Your task to perform on an android device: toggle show notifications on the lock screen Image 0: 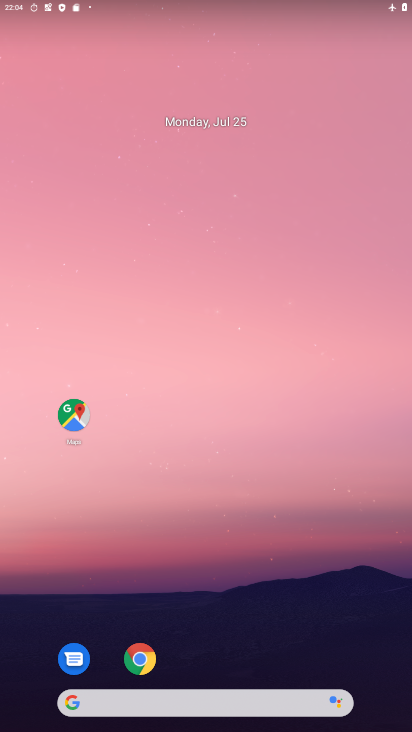
Step 0: drag from (195, 670) to (241, 243)
Your task to perform on an android device: toggle show notifications on the lock screen Image 1: 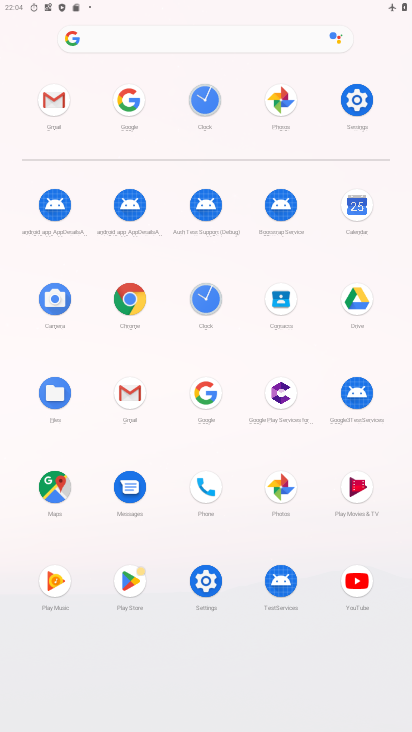
Step 1: click (359, 101)
Your task to perform on an android device: toggle show notifications on the lock screen Image 2: 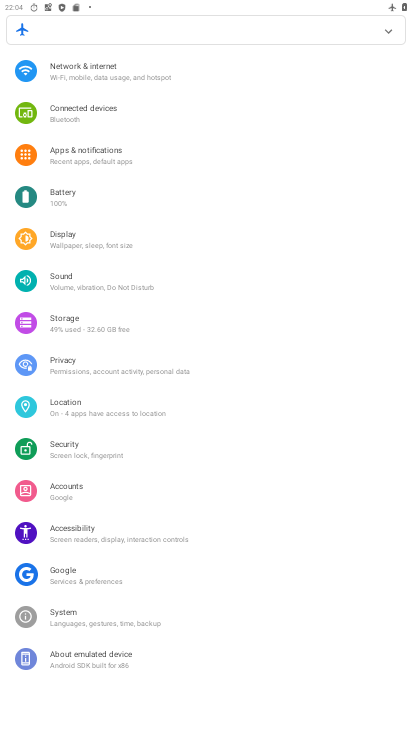
Step 2: click (119, 161)
Your task to perform on an android device: toggle show notifications on the lock screen Image 3: 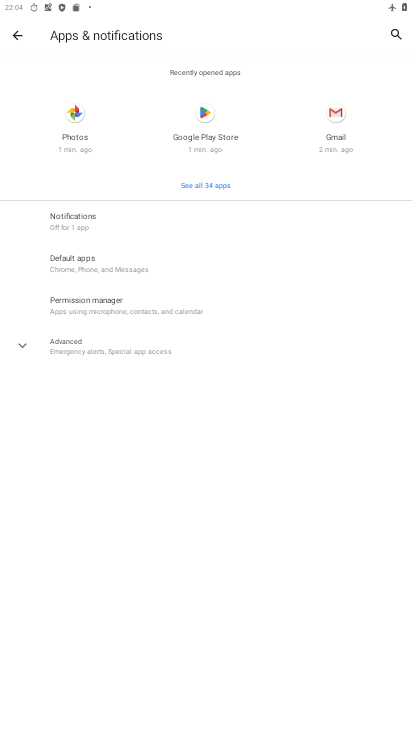
Step 3: click (126, 217)
Your task to perform on an android device: toggle show notifications on the lock screen Image 4: 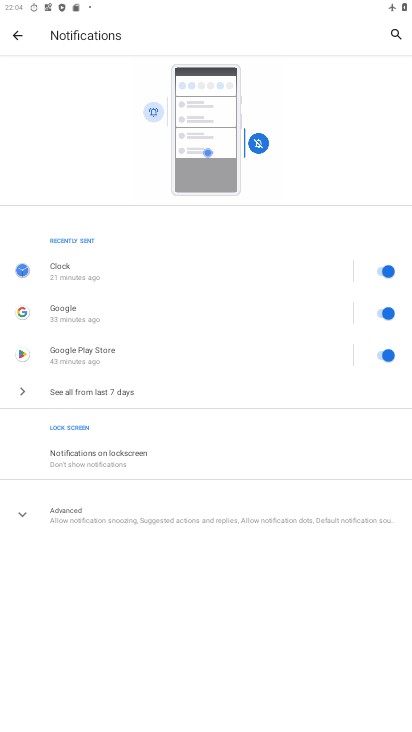
Step 4: click (191, 457)
Your task to perform on an android device: toggle show notifications on the lock screen Image 5: 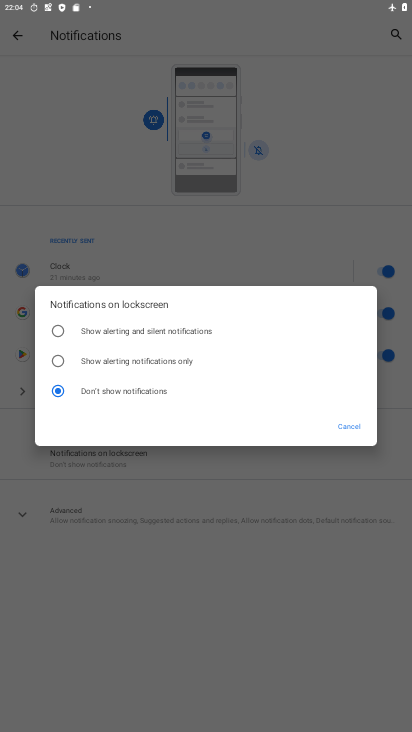
Step 5: click (136, 337)
Your task to perform on an android device: toggle show notifications on the lock screen Image 6: 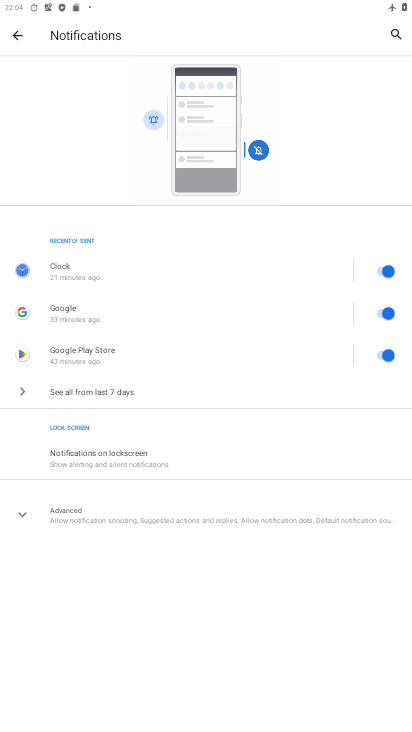
Step 6: task complete